Your task to perform on an android device: change the clock display to digital Image 0: 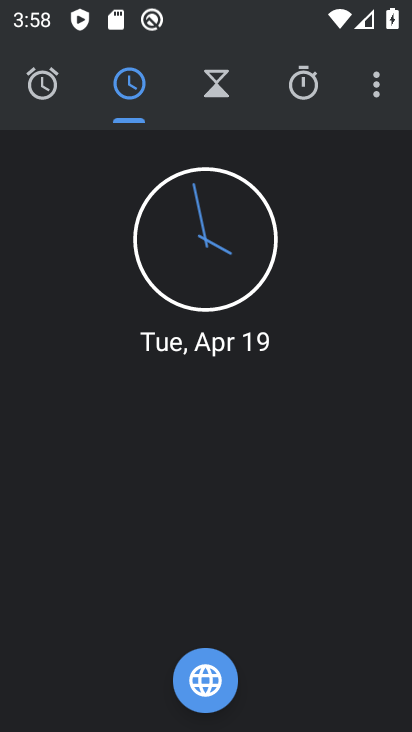
Step 0: click (374, 86)
Your task to perform on an android device: change the clock display to digital Image 1: 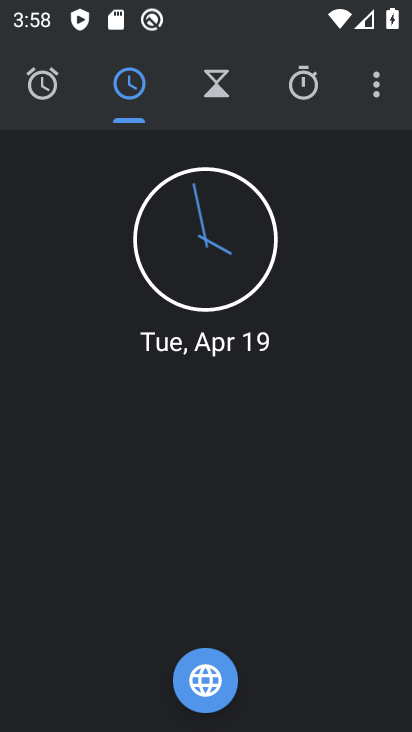
Step 1: click (380, 98)
Your task to perform on an android device: change the clock display to digital Image 2: 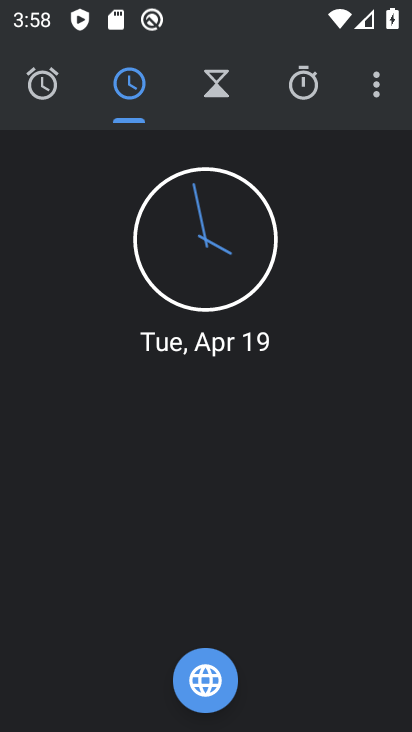
Step 2: click (380, 90)
Your task to perform on an android device: change the clock display to digital Image 3: 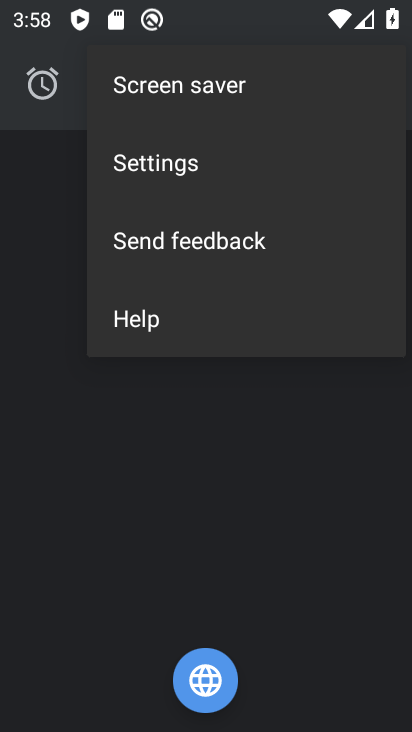
Step 3: click (190, 168)
Your task to perform on an android device: change the clock display to digital Image 4: 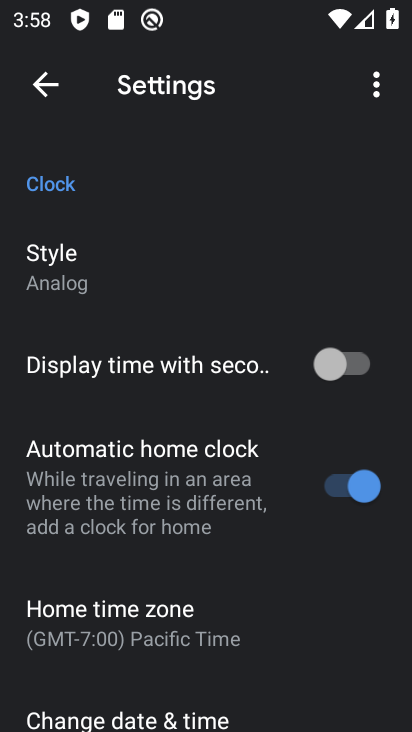
Step 4: click (73, 270)
Your task to perform on an android device: change the clock display to digital Image 5: 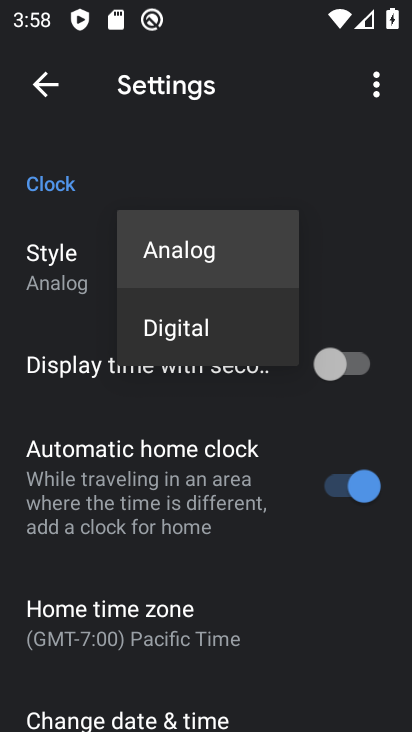
Step 5: click (178, 337)
Your task to perform on an android device: change the clock display to digital Image 6: 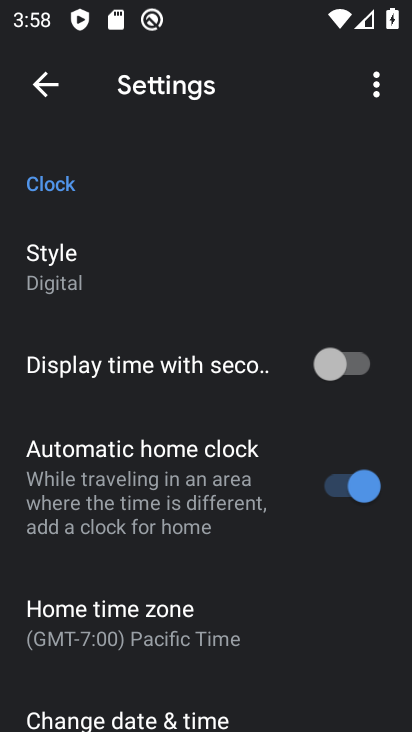
Step 6: task complete